Your task to perform on an android device: Open CNN.com Image 0: 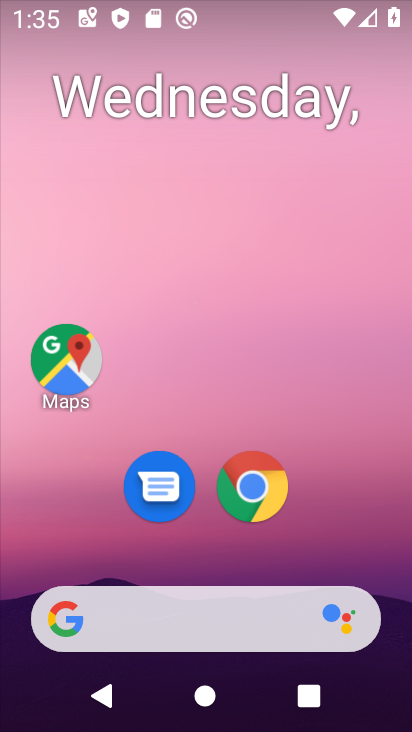
Step 0: click (258, 496)
Your task to perform on an android device: Open CNN.com Image 1: 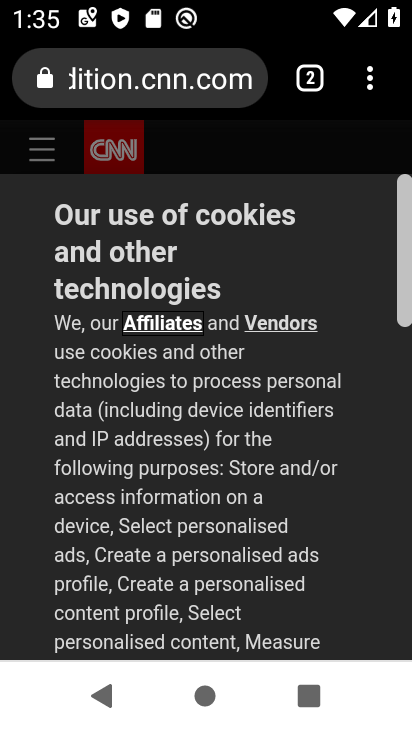
Step 1: task complete